Your task to perform on an android device: open app "Walmart Shopping & Grocery" Image 0: 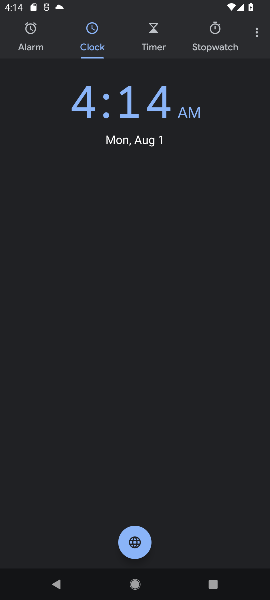
Step 0: press home button
Your task to perform on an android device: open app "Walmart Shopping & Grocery" Image 1: 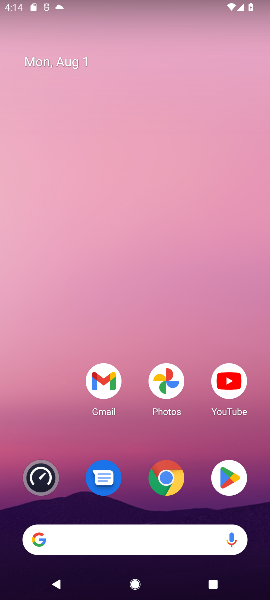
Step 1: click (234, 492)
Your task to perform on an android device: open app "Walmart Shopping & Grocery" Image 2: 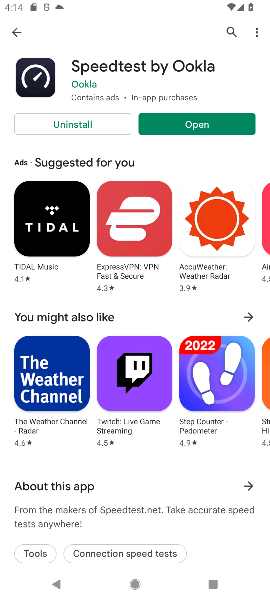
Step 2: click (221, 33)
Your task to perform on an android device: open app "Walmart Shopping & Grocery" Image 3: 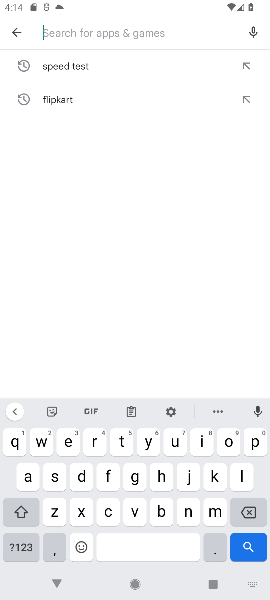
Step 3: click (39, 435)
Your task to perform on an android device: open app "Walmart Shopping & Grocery" Image 4: 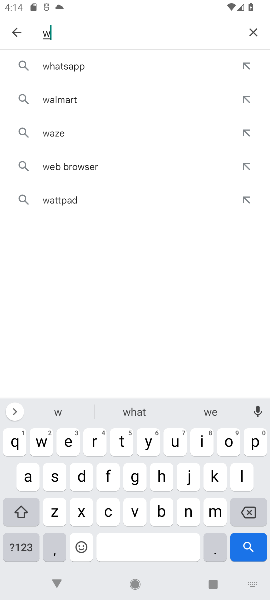
Step 4: click (27, 487)
Your task to perform on an android device: open app "Walmart Shopping & Grocery" Image 5: 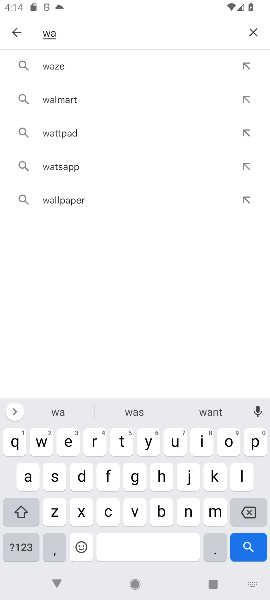
Step 5: click (240, 471)
Your task to perform on an android device: open app "Walmart Shopping & Grocery" Image 6: 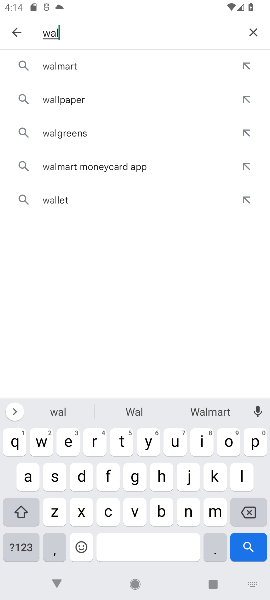
Step 6: click (76, 67)
Your task to perform on an android device: open app "Walmart Shopping & Grocery" Image 7: 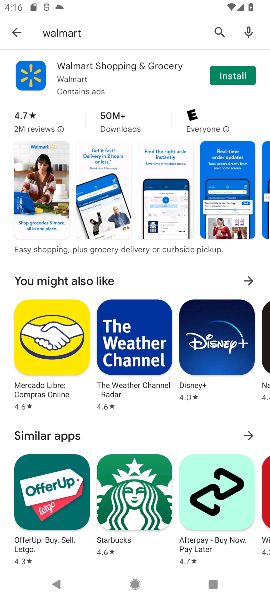
Step 7: task complete